Your task to perform on an android device: Open wifi settings Image 0: 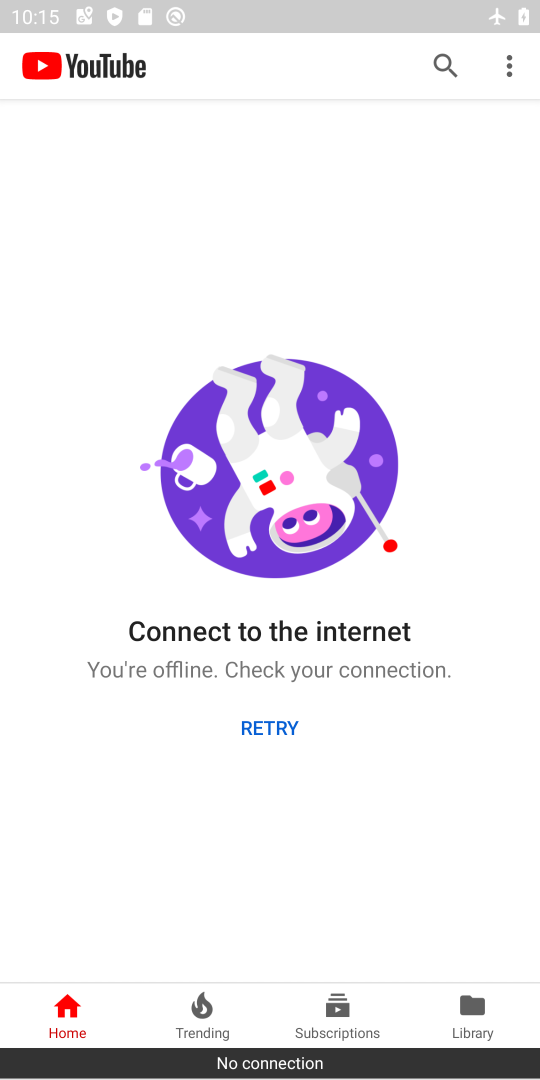
Step 0: press home button
Your task to perform on an android device: Open wifi settings Image 1: 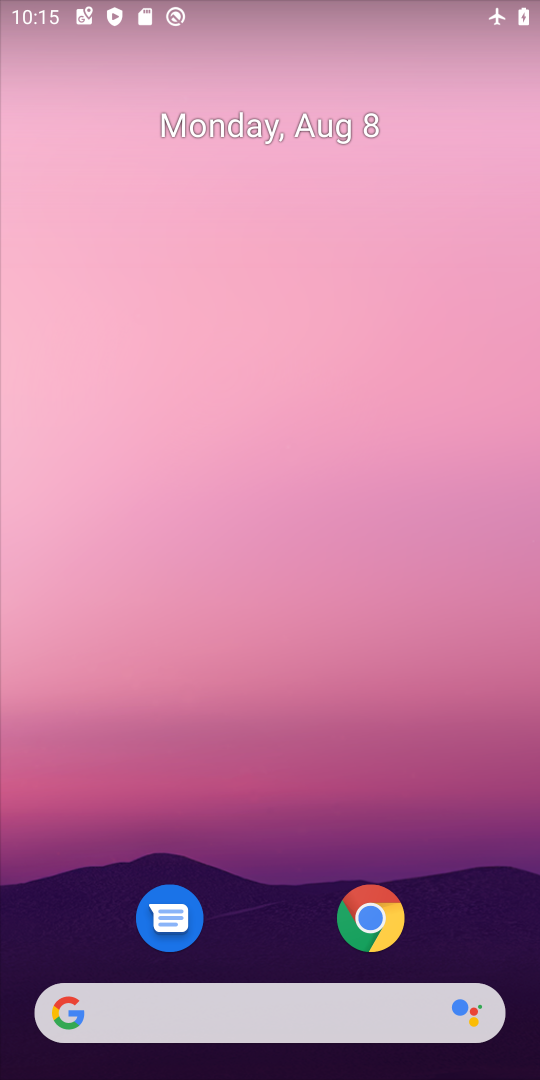
Step 1: drag from (255, 968) to (297, 152)
Your task to perform on an android device: Open wifi settings Image 2: 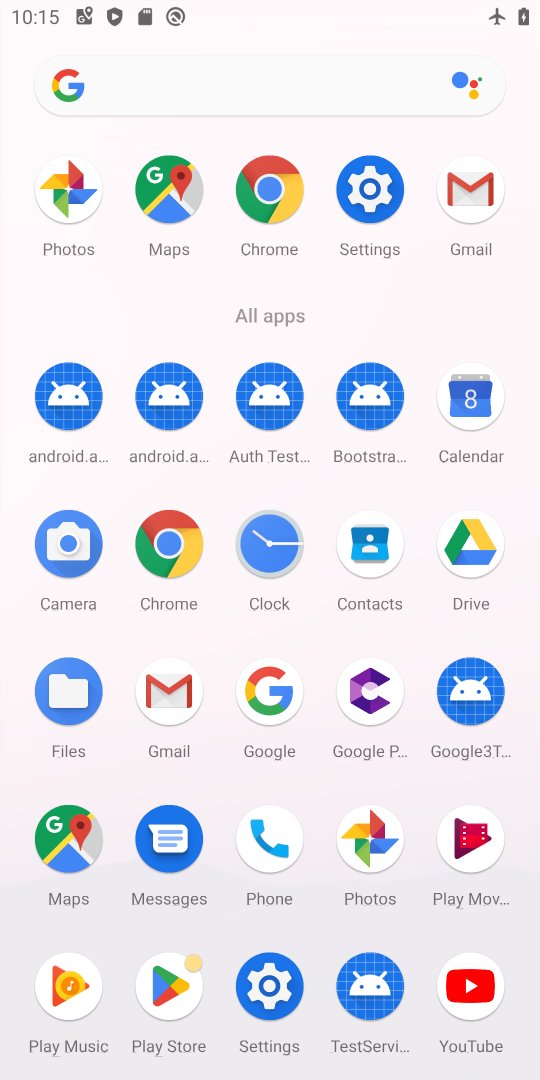
Step 2: click (246, 1001)
Your task to perform on an android device: Open wifi settings Image 3: 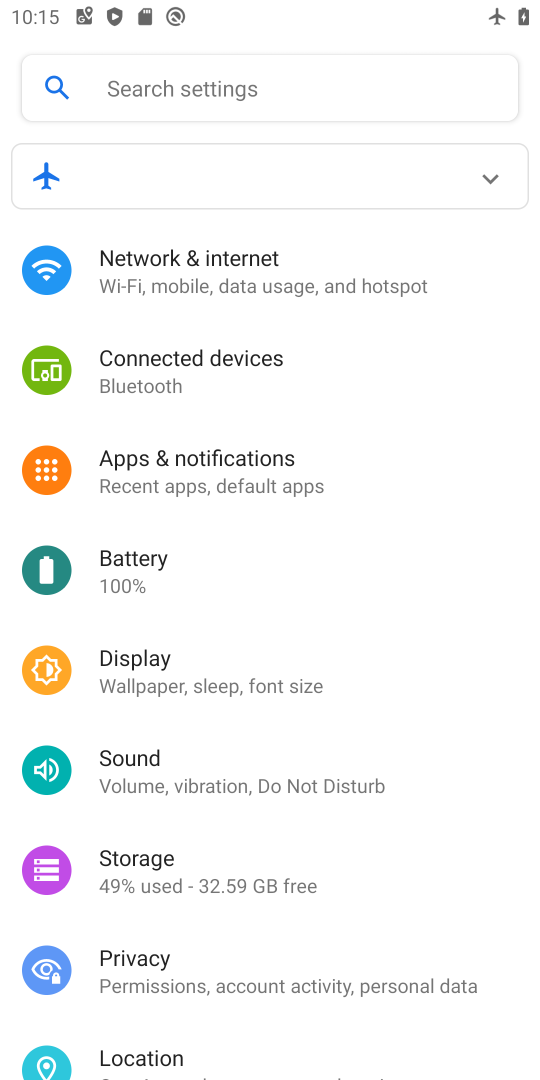
Step 3: drag from (252, 303) to (302, 303)
Your task to perform on an android device: Open wifi settings Image 4: 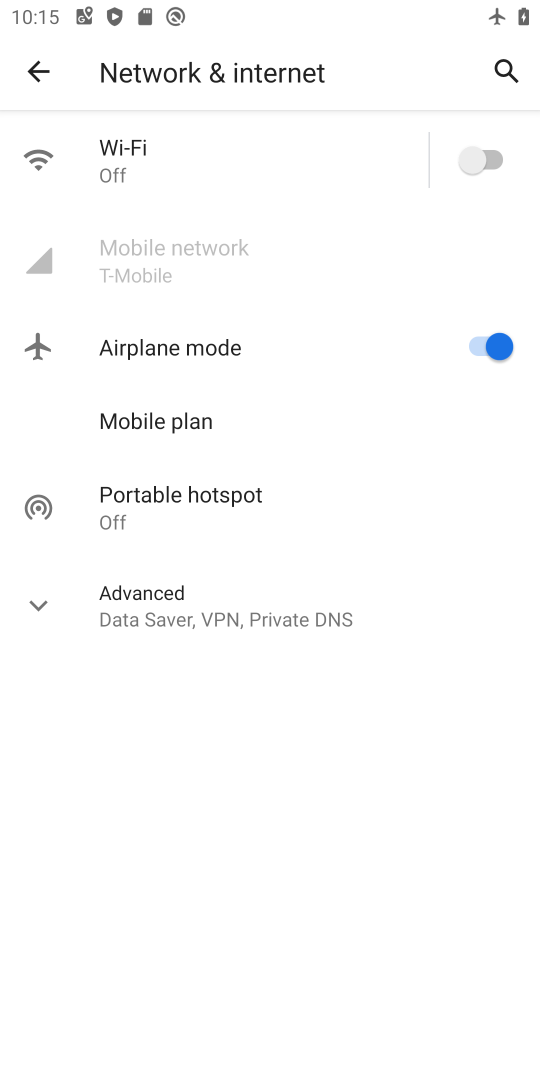
Step 4: click (144, 177)
Your task to perform on an android device: Open wifi settings Image 5: 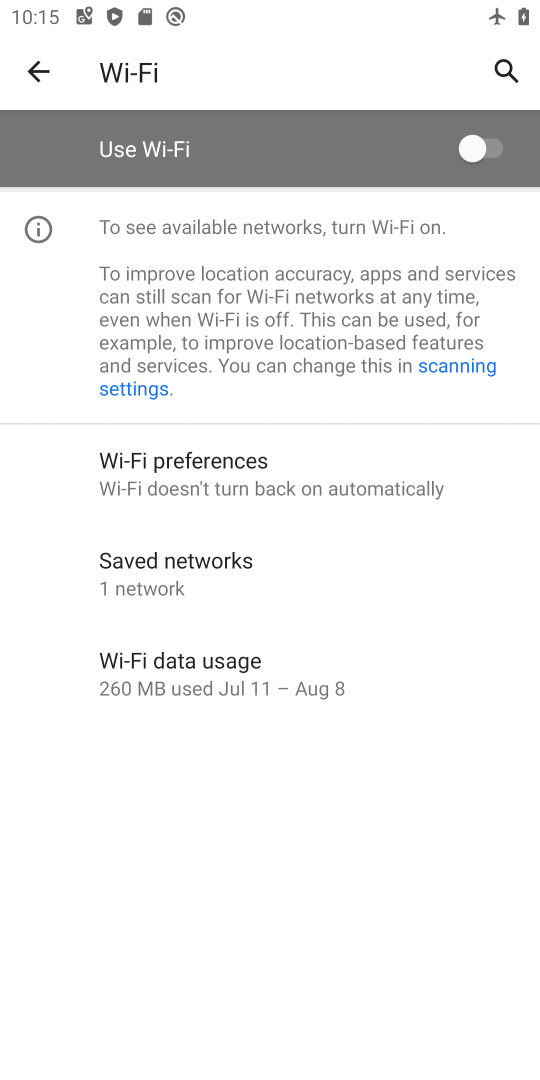
Step 5: task complete